Your task to perform on an android device: Turn off the flashlight Image 0: 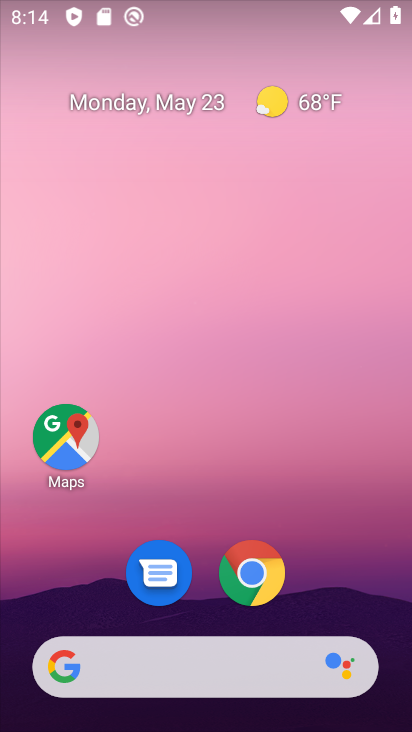
Step 0: press home button
Your task to perform on an android device: Turn off the flashlight Image 1: 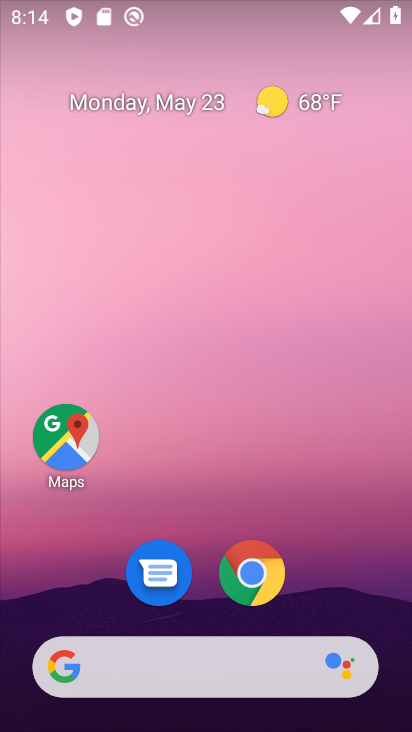
Step 1: drag from (198, 623) to (235, 98)
Your task to perform on an android device: Turn off the flashlight Image 2: 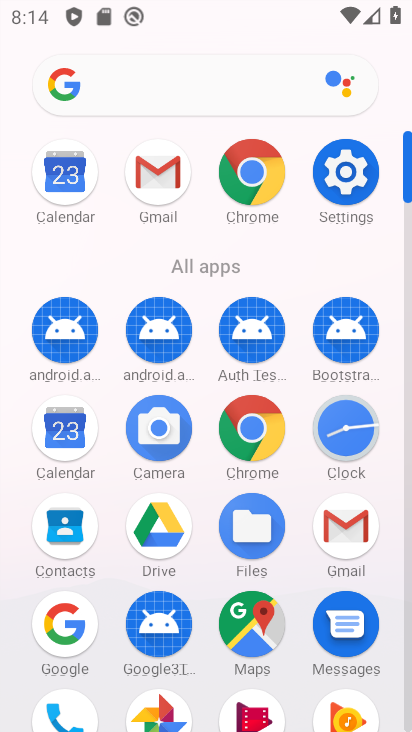
Step 2: click (350, 157)
Your task to perform on an android device: Turn off the flashlight Image 3: 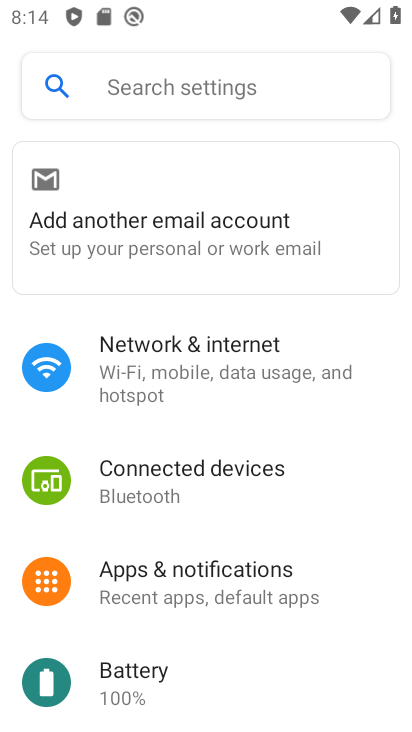
Step 3: click (161, 83)
Your task to perform on an android device: Turn off the flashlight Image 4: 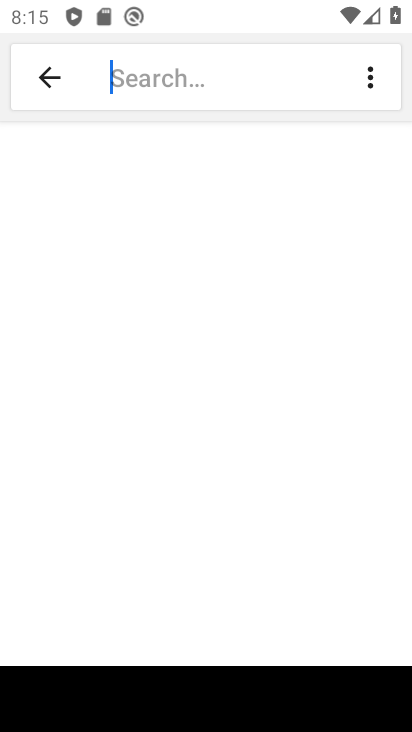
Step 4: type "flashlight"
Your task to perform on an android device: Turn off the flashlight Image 5: 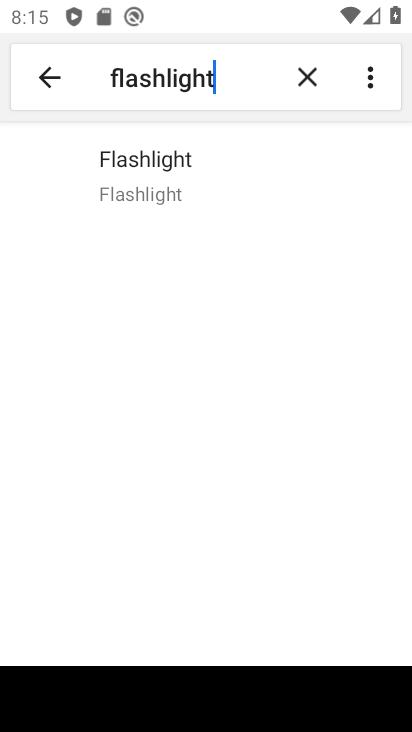
Step 5: click (166, 171)
Your task to perform on an android device: Turn off the flashlight Image 6: 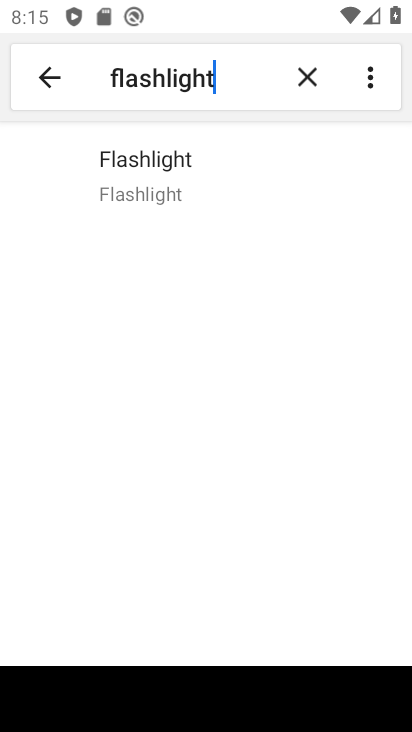
Step 6: task complete